Your task to perform on an android device: check android version Image 0: 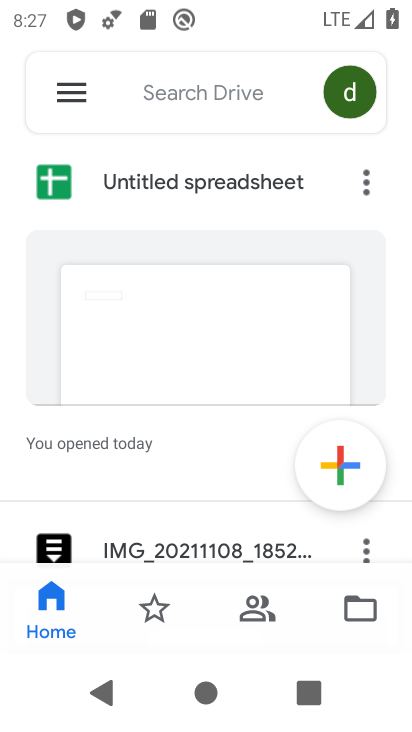
Step 0: drag from (192, 537) to (252, 155)
Your task to perform on an android device: check android version Image 1: 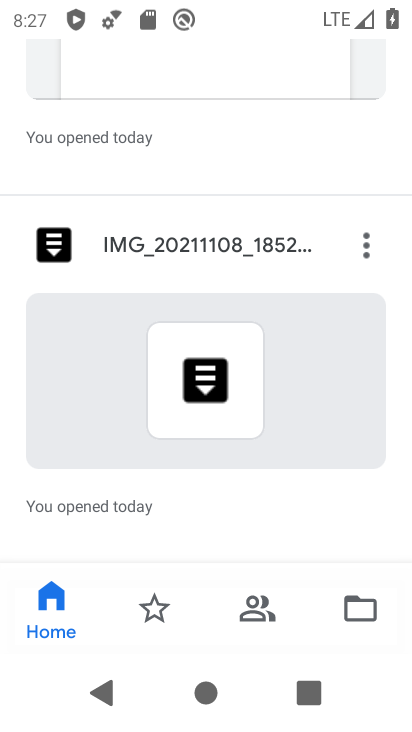
Step 1: press home button
Your task to perform on an android device: check android version Image 2: 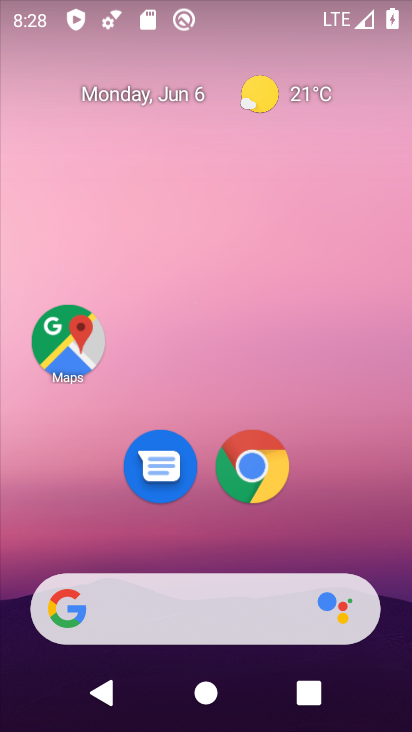
Step 2: drag from (229, 520) to (187, 63)
Your task to perform on an android device: check android version Image 3: 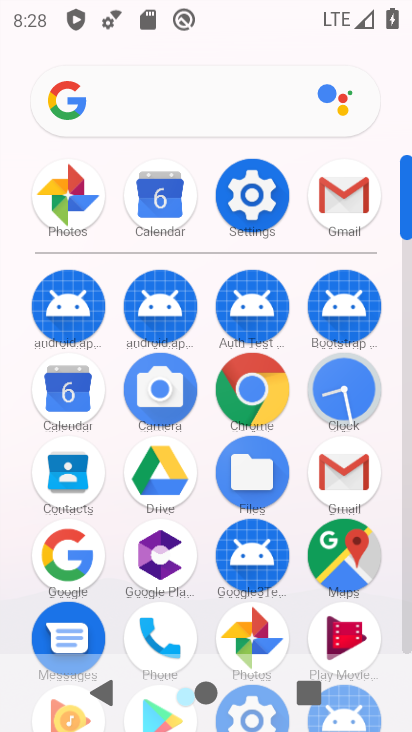
Step 3: click (242, 194)
Your task to perform on an android device: check android version Image 4: 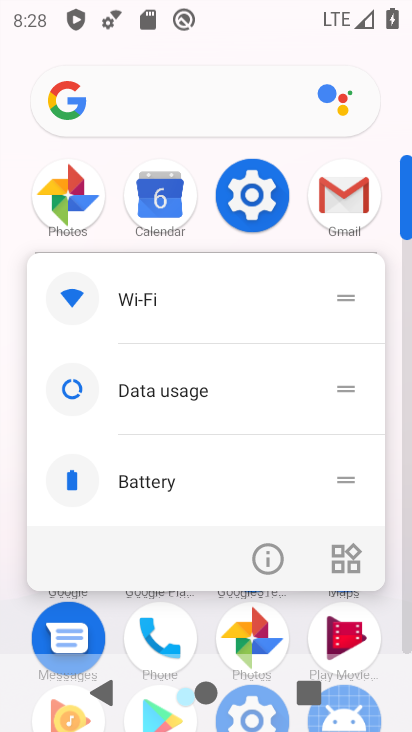
Step 4: click (284, 547)
Your task to perform on an android device: check android version Image 5: 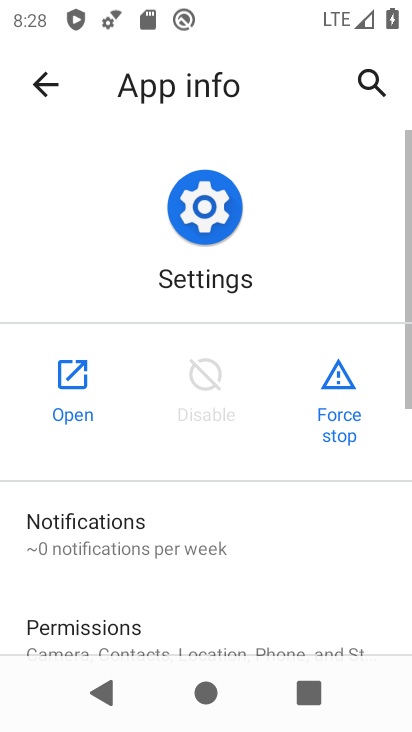
Step 5: click (76, 367)
Your task to perform on an android device: check android version Image 6: 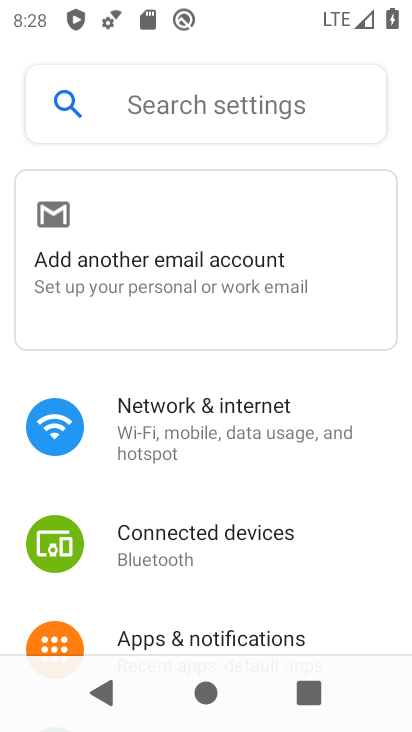
Step 6: drag from (181, 607) to (177, 56)
Your task to perform on an android device: check android version Image 7: 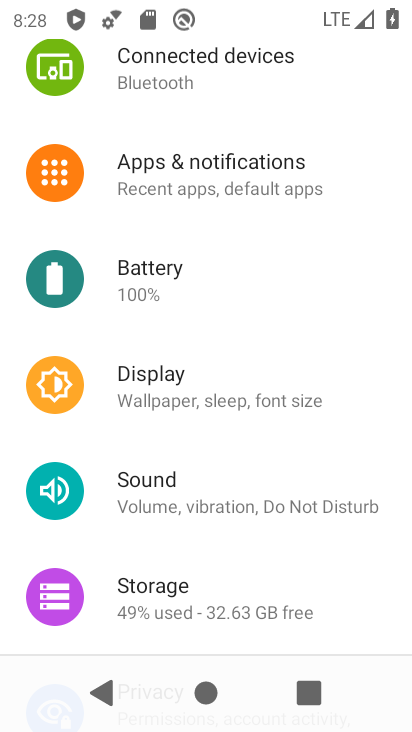
Step 7: drag from (150, 617) to (215, 0)
Your task to perform on an android device: check android version Image 8: 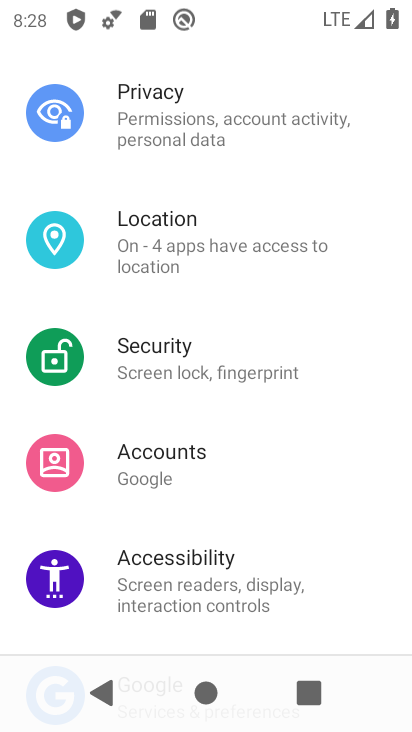
Step 8: drag from (188, 522) to (212, 20)
Your task to perform on an android device: check android version Image 9: 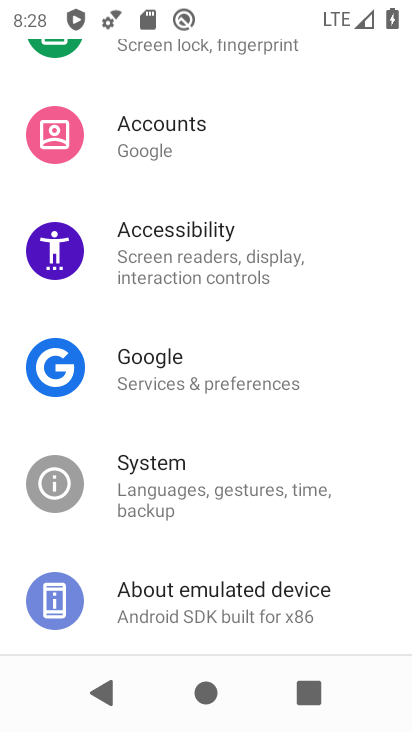
Step 9: click (172, 591)
Your task to perform on an android device: check android version Image 10: 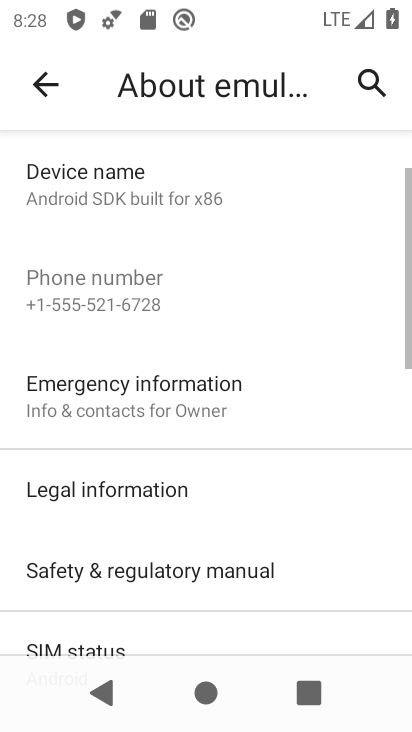
Step 10: drag from (187, 515) to (260, 2)
Your task to perform on an android device: check android version Image 11: 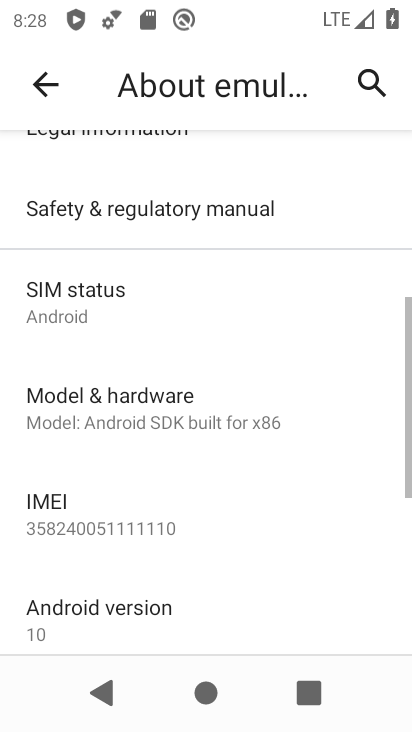
Step 11: drag from (139, 568) to (191, 212)
Your task to perform on an android device: check android version Image 12: 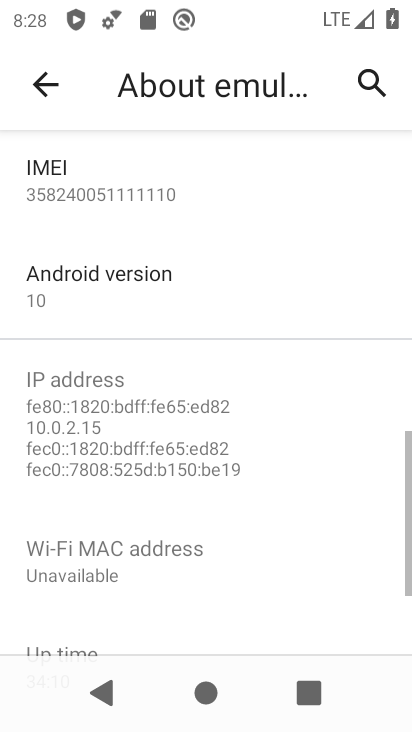
Step 12: click (152, 299)
Your task to perform on an android device: check android version Image 13: 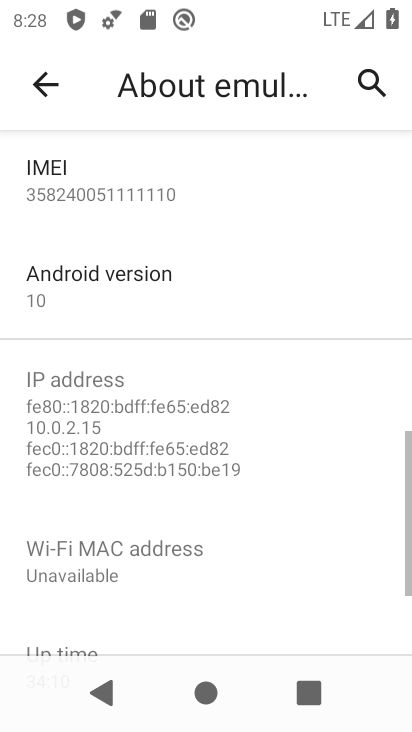
Step 13: click (152, 298)
Your task to perform on an android device: check android version Image 14: 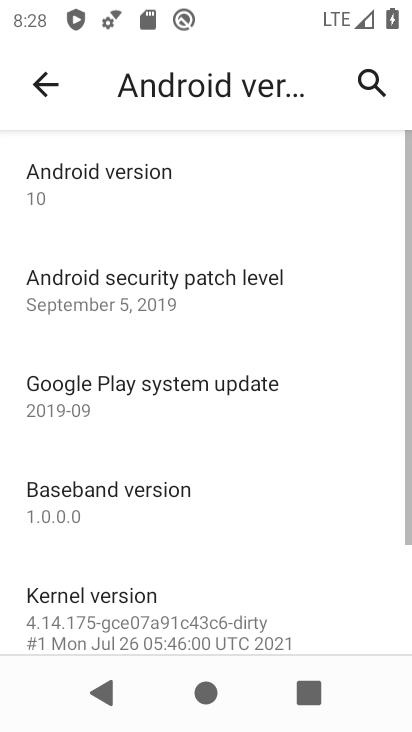
Step 14: task complete